Your task to perform on an android device: Open battery settings Image 0: 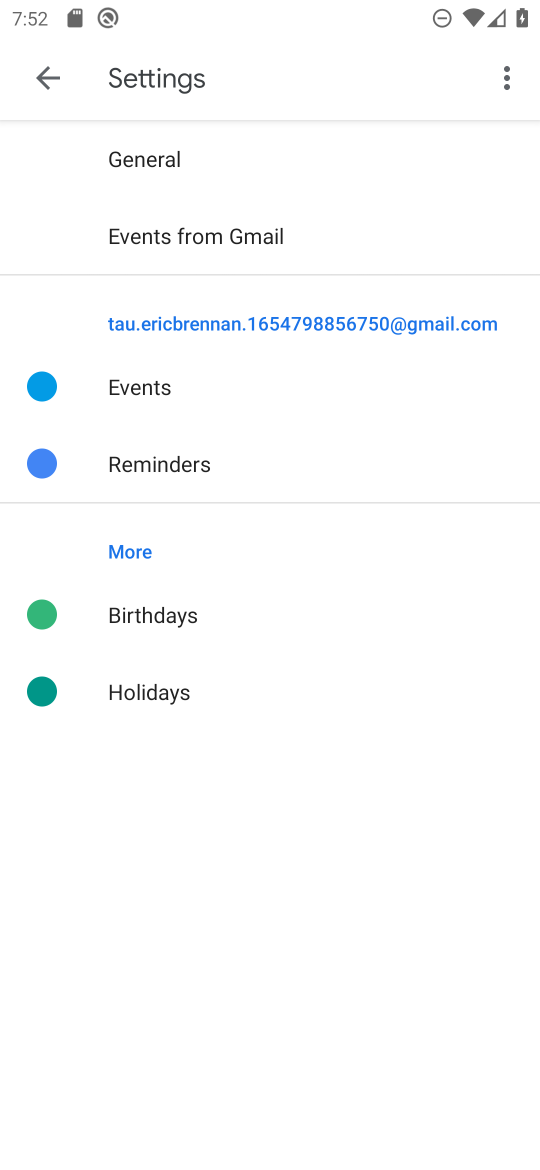
Step 0: press home button
Your task to perform on an android device: Open battery settings Image 1: 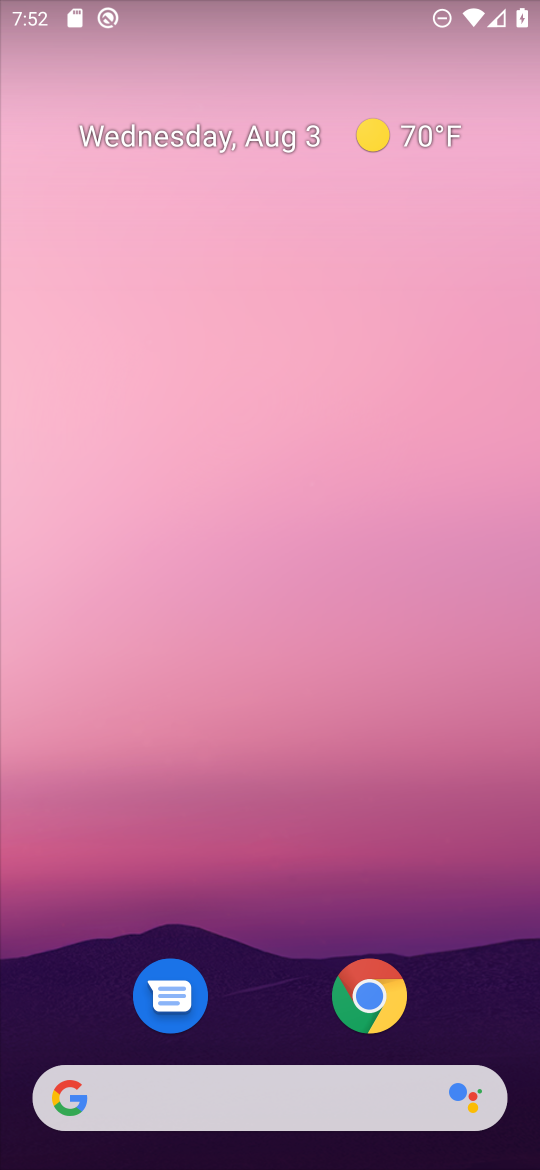
Step 1: drag from (250, 884) to (303, 18)
Your task to perform on an android device: Open battery settings Image 2: 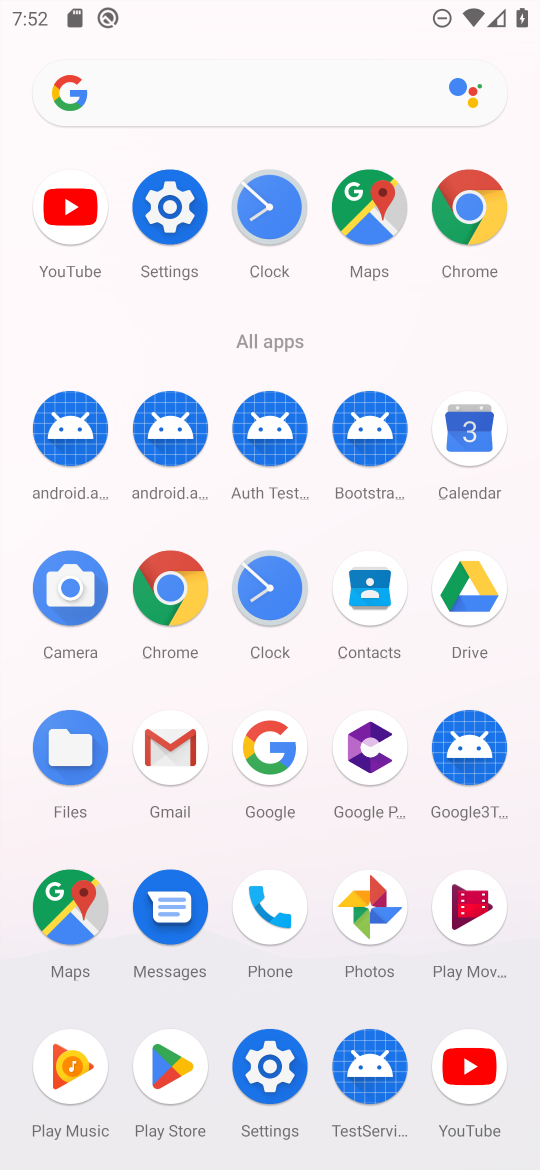
Step 2: click (179, 210)
Your task to perform on an android device: Open battery settings Image 3: 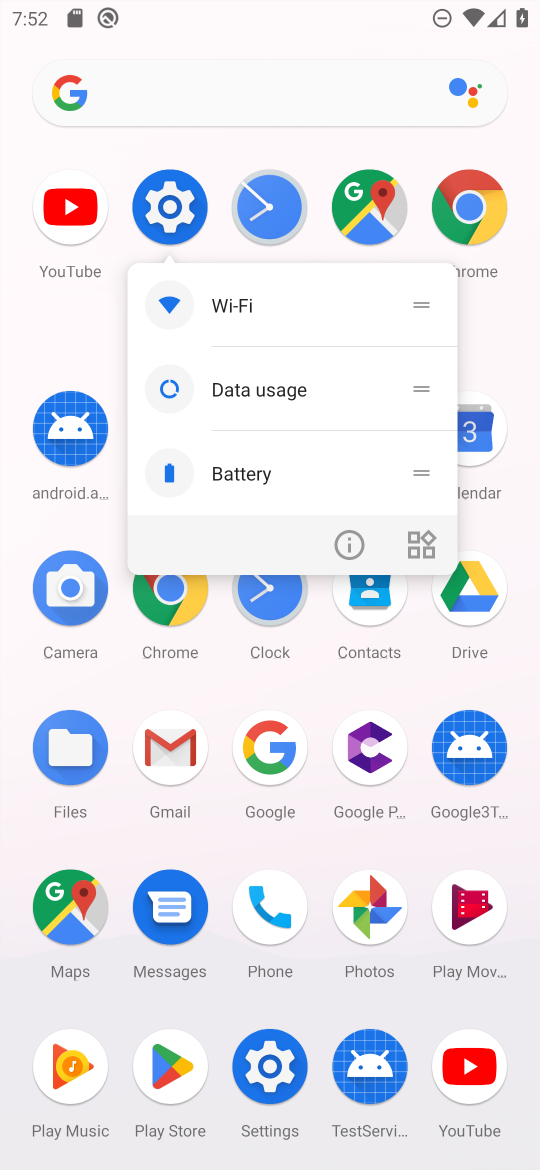
Step 3: click (179, 214)
Your task to perform on an android device: Open battery settings Image 4: 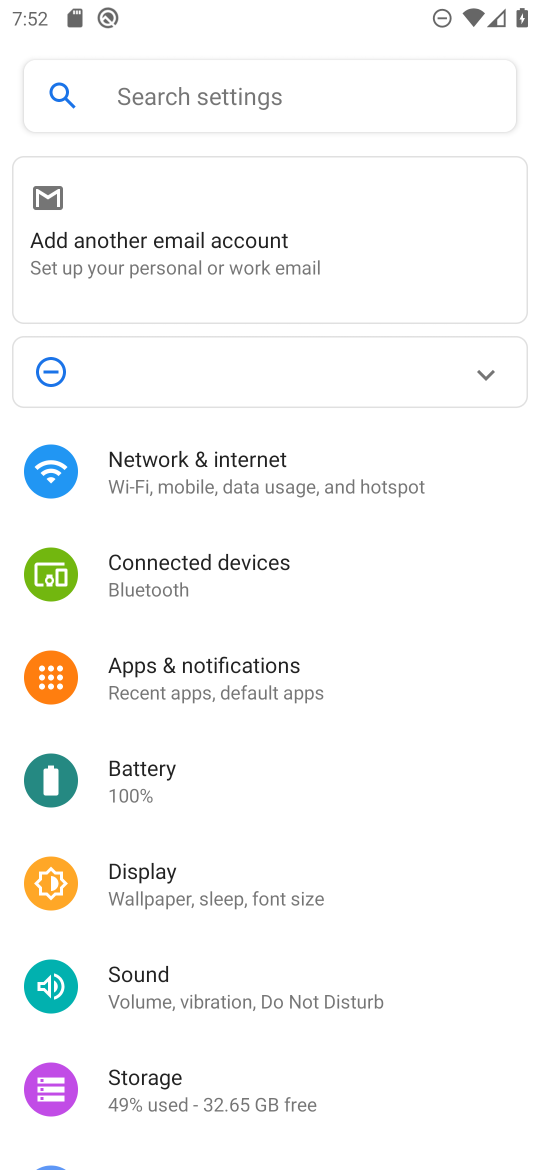
Step 4: click (165, 776)
Your task to perform on an android device: Open battery settings Image 5: 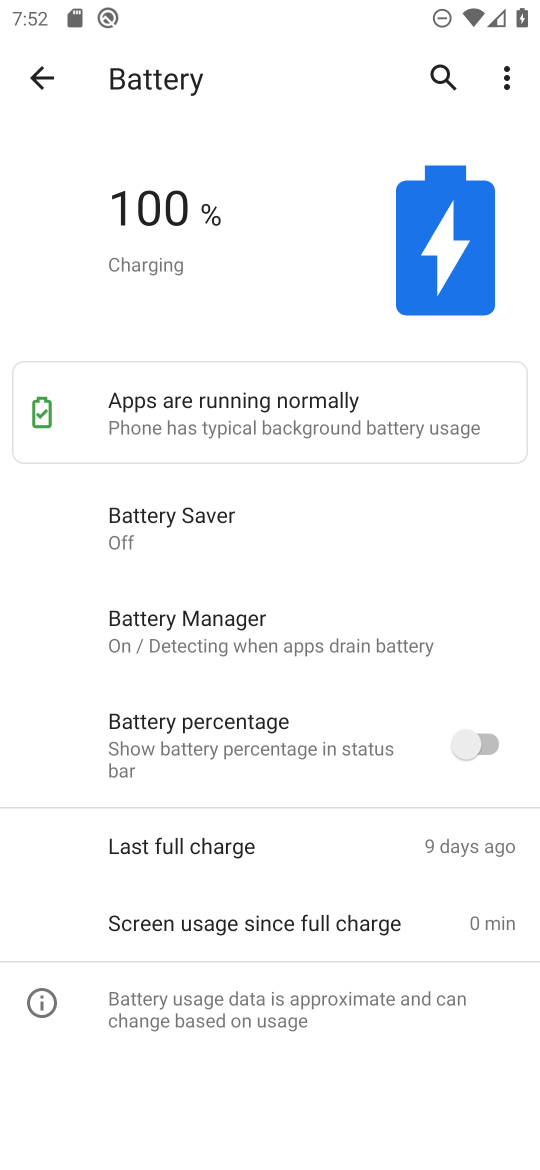
Step 5: task complete